Your task to perform on an android device: make emails show in primary in the gmail app Image 0: 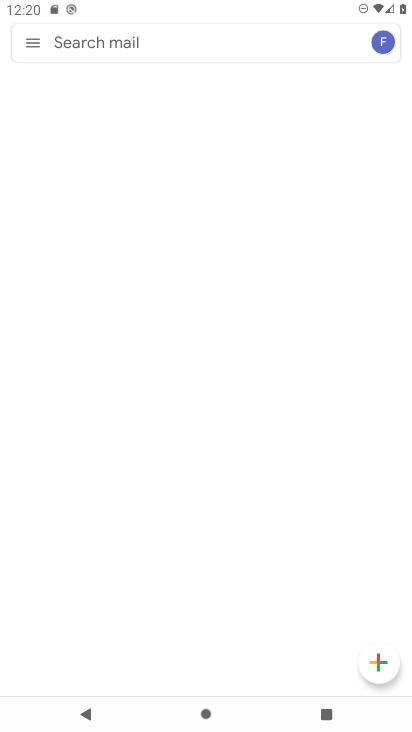
Step 0: press home button
Your task to perform on an android device: make emails show in primary in the gmail app Image 1: 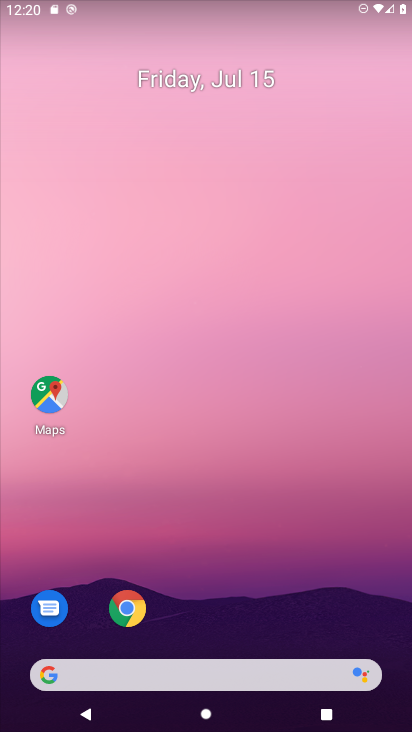
Step 1: drag from (285, 677) to (306, 0)
Your task to perform on an android device: make emails show in primary in the gmail app Image 2: 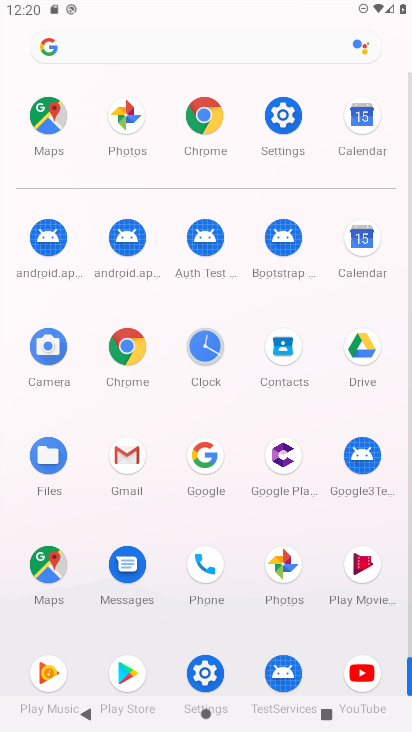
Step 2: click (139, 454)
Your task to perform on an android device: make emails show in primary in the gmail app Image 3: 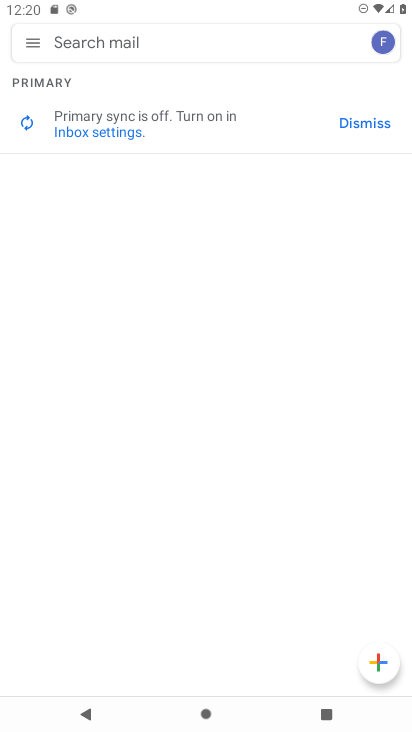
Step 3: click (29, 31)
Your task to perform on an android device: make emails show in primary in the gmail app Image 4: 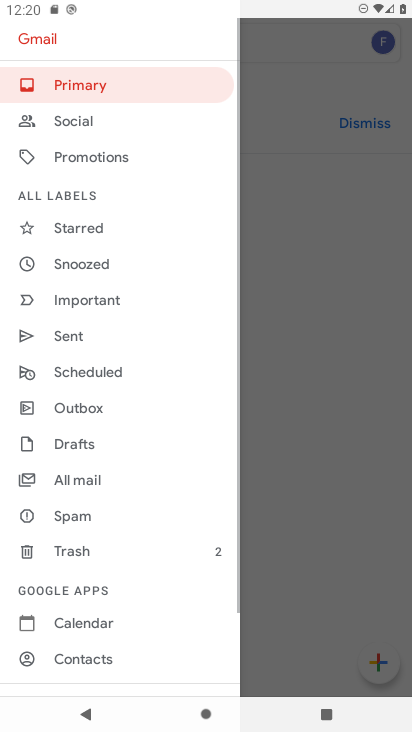
Step 4: click (66, 79)
Your task to perform on an android device: make emails show in primary in the gmail app Image 5: 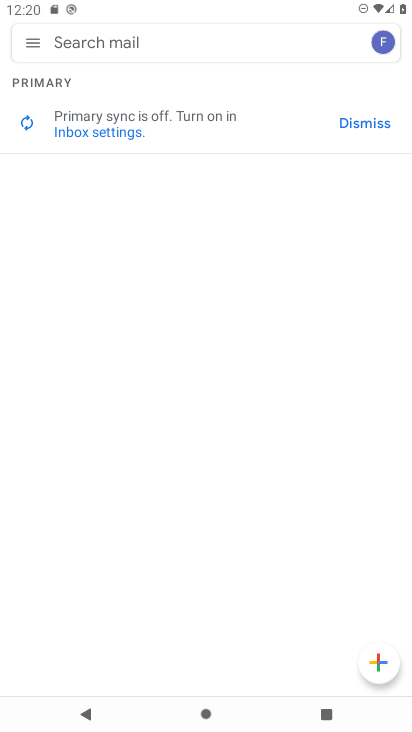
Step 5: task complete